Your task to perform on an android device: open app "DoorDash - Food Delivery" (install if not already installed) Image 0: 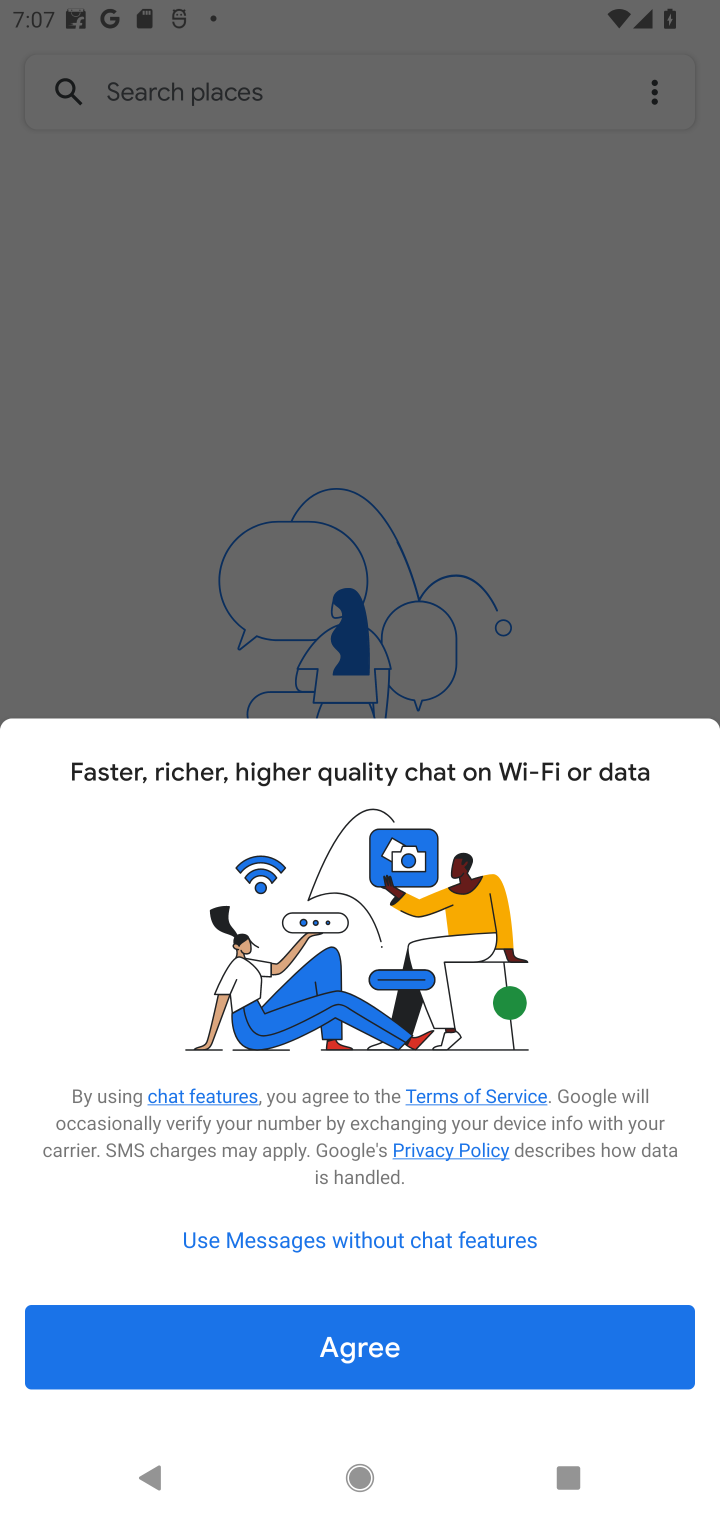
Step 0: press home button
Your task to perform on an android device: open app "DoorDash - Food Delivery" (install if not already installed) Image 1: 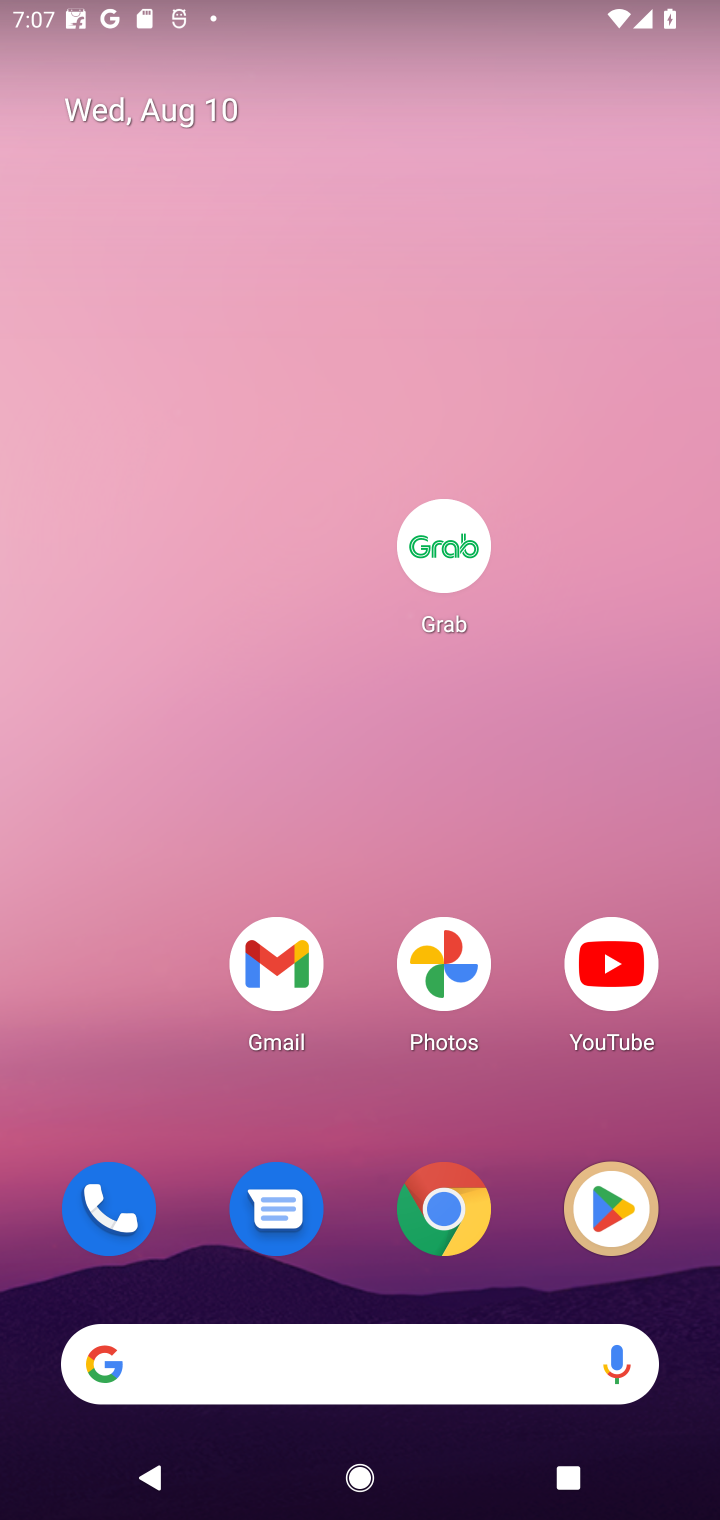
Step 1: drag from (367, 1312) to (331, 191)
Your task to perform on an android device: open app "DoorDash - Food Delivery" (install if not already installed) Image 2: 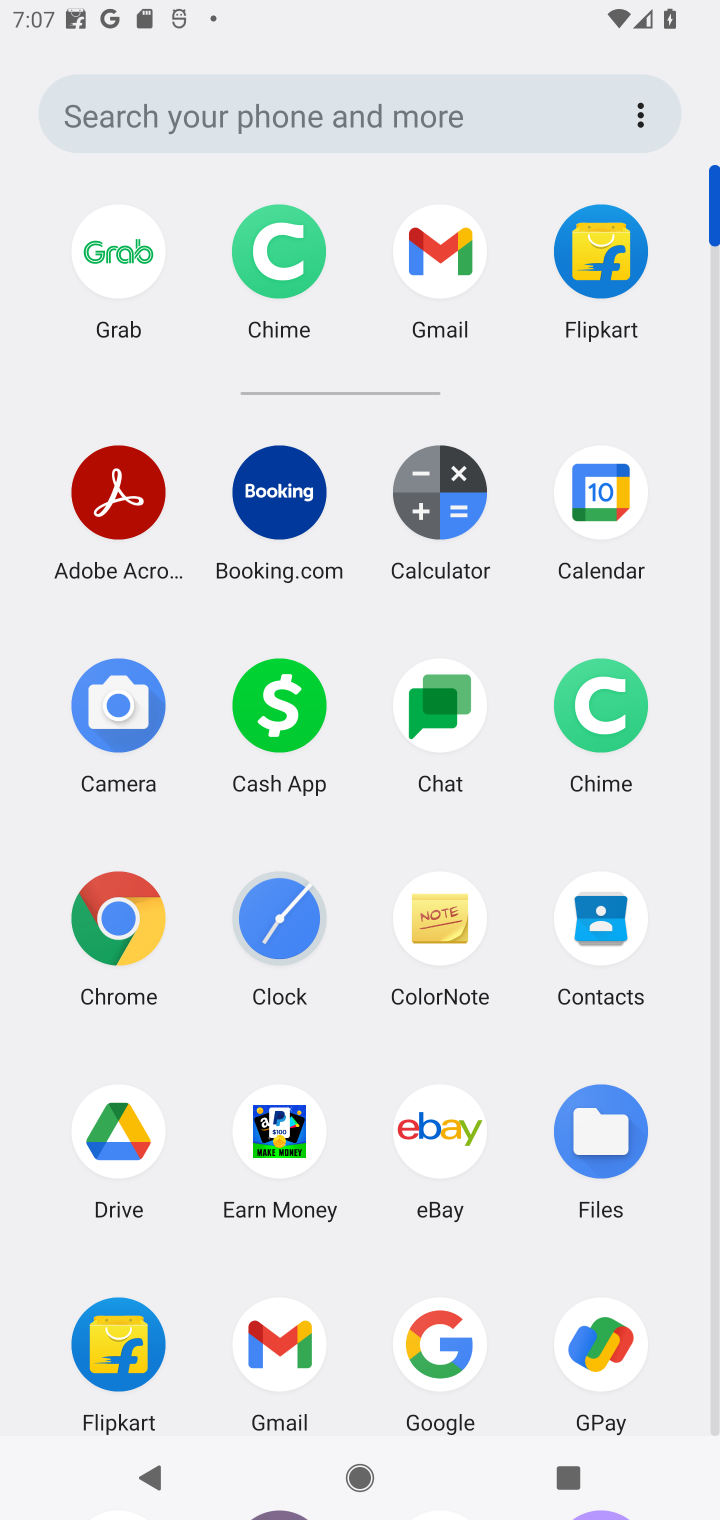
Step 2: click (190, 95)
Your task to perform on an android device: open app "DoorDash - Food Delivery" (install if not already installed) Image 3: 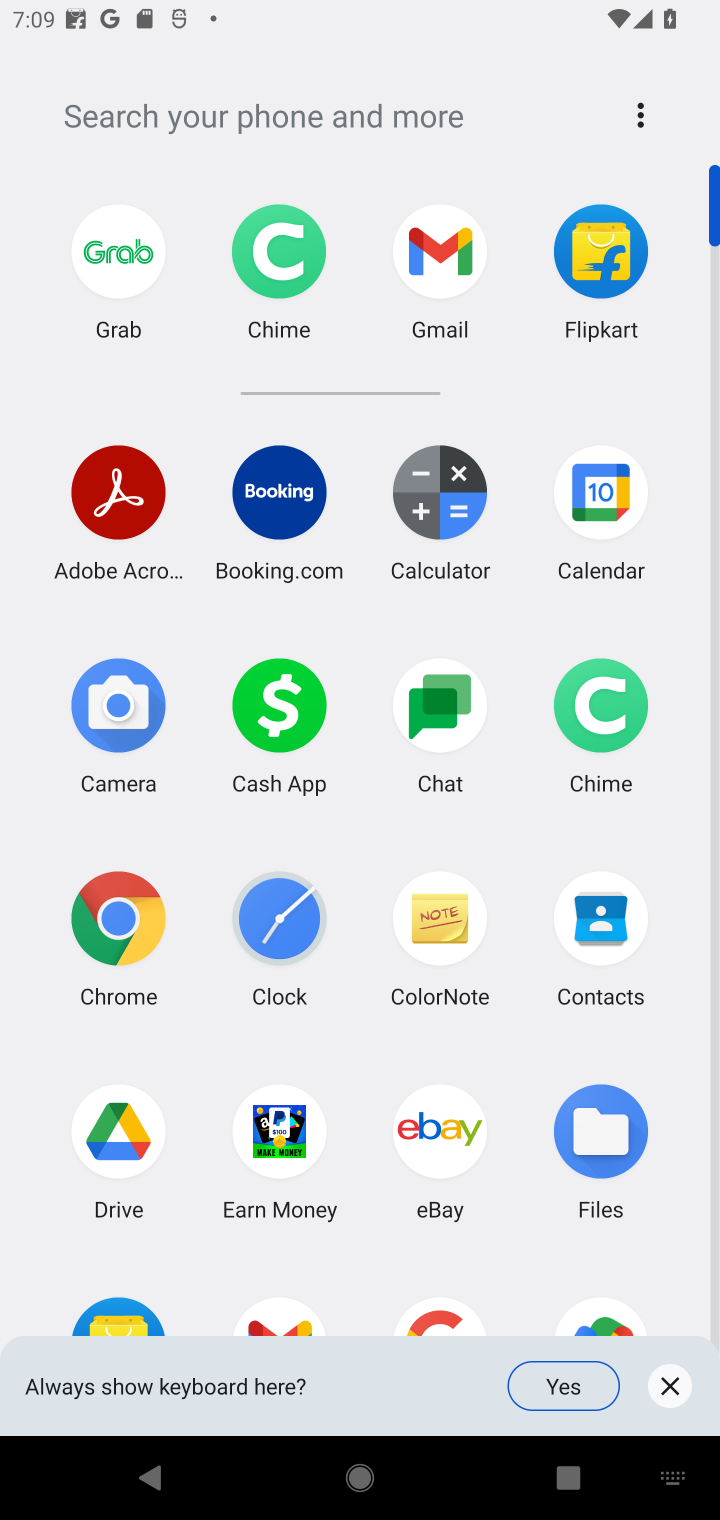
Step 3: click (670, 1388)
Your task to perform on an android device: open app "DoorDash - Food Delivery" (install if not already installed) Image 4: 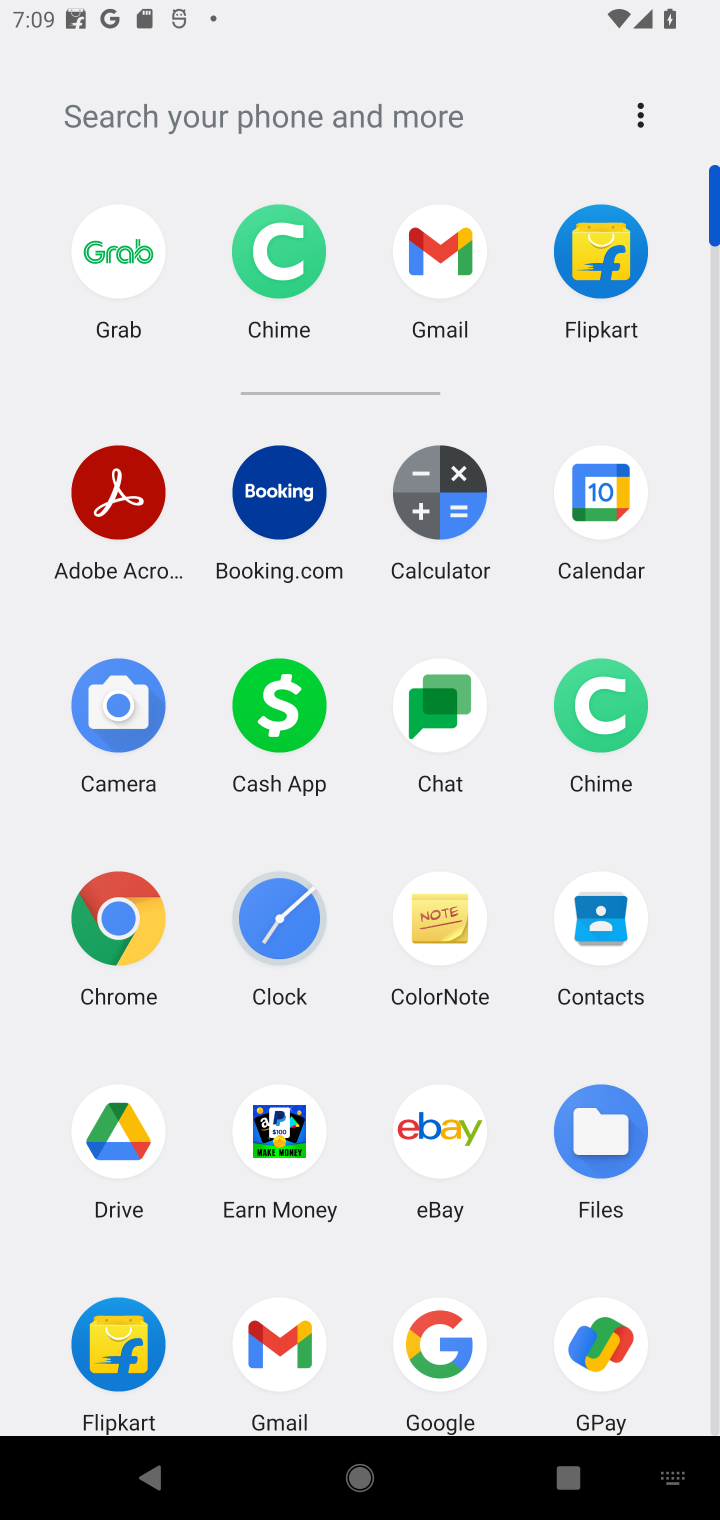
Step 4: click (716, 1401)
Your task to perform on an android device: open app "DoorDash - Food Delivery" (install if not already installed) Image 5: 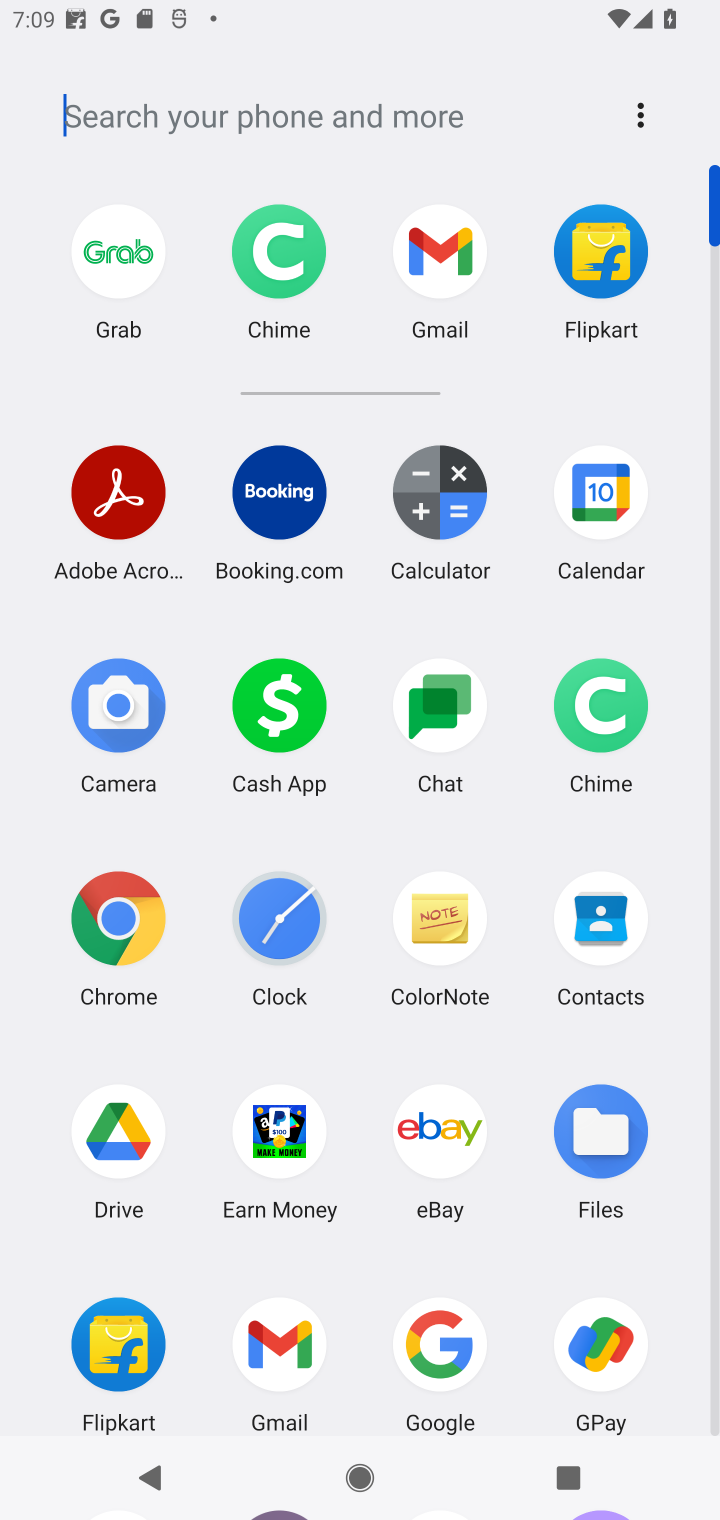
Step 5: click (716, 1401)
Your task to perform on an android device: open app "DoorDash - Food Delivery" (install if not already installed) Image 6: 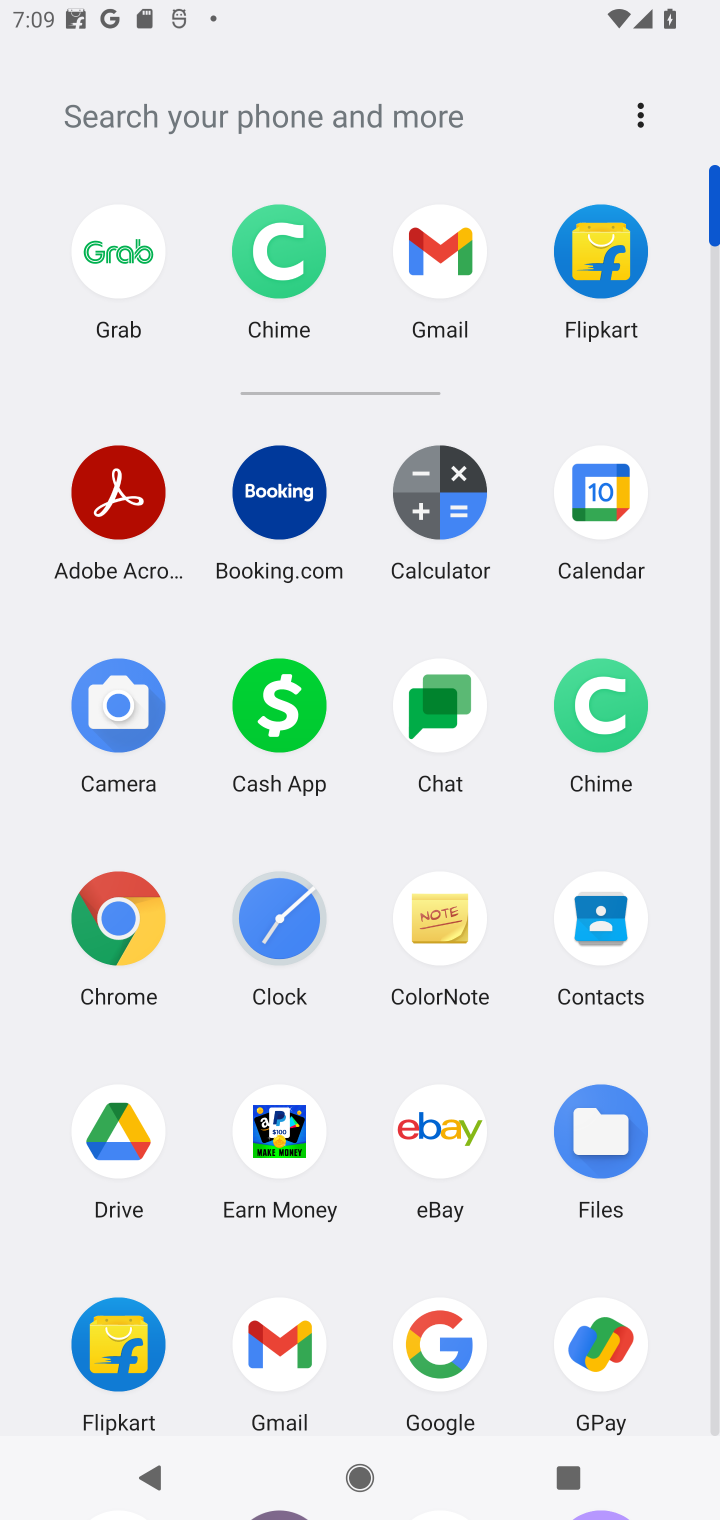
Step 6: click (716, 1401)
Your task to perform on an android device: open app "DoorDash - Food Delivery" (install if not already installed) Image 7: 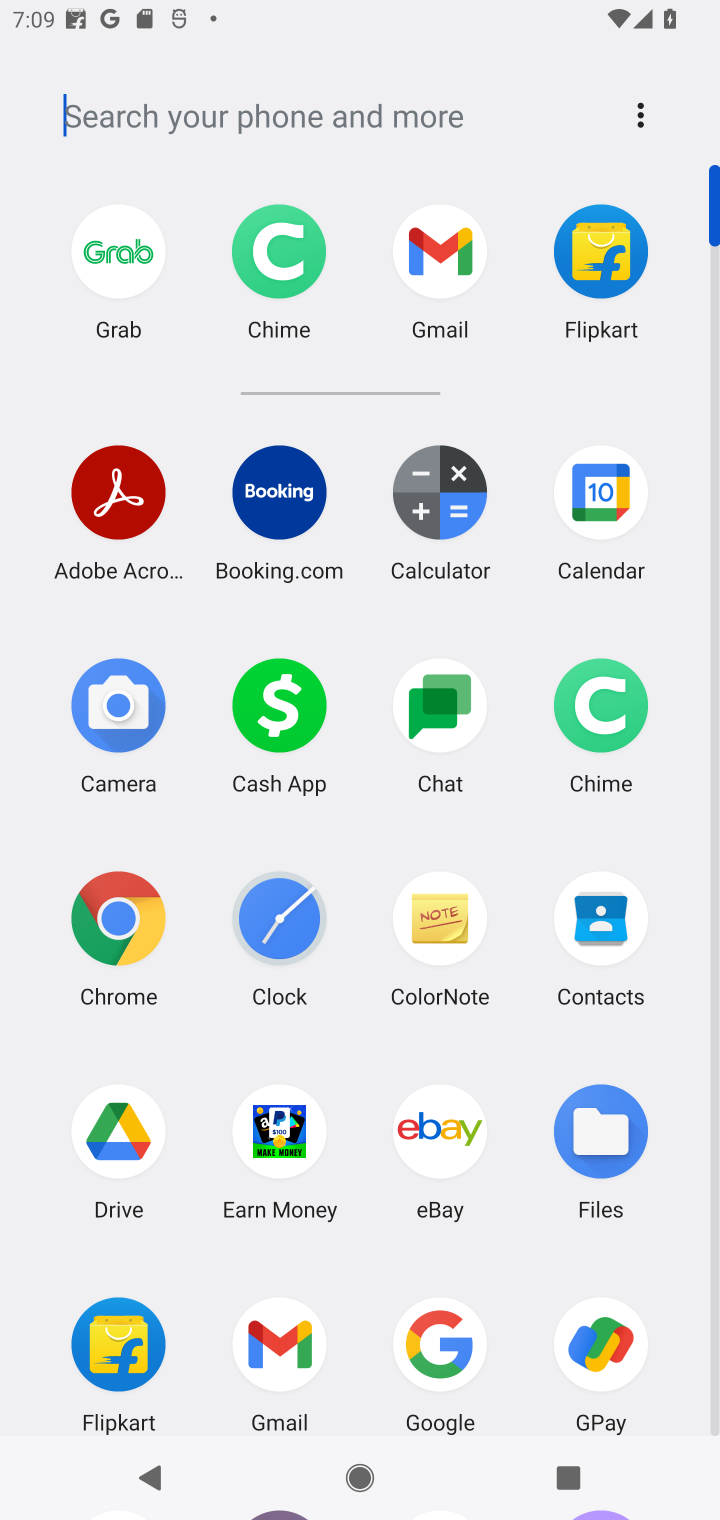
Step 7: press home button
Your task to perform on an android device: open app "DoorDash - Food Delivery" (install if not already installed) Image 8: 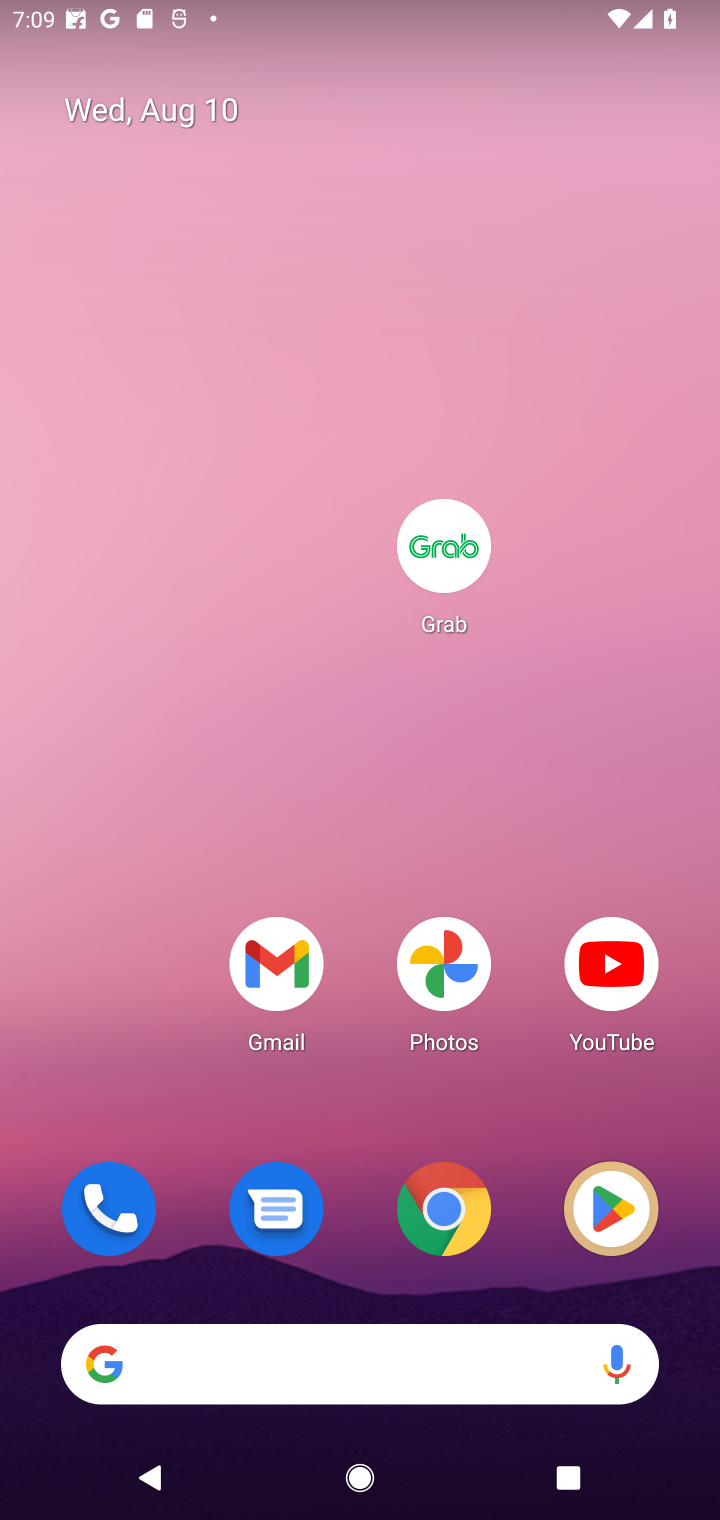
Step 8: click (606, 1208)
Your task to perform on an android device: open app "DoorDash - Food Delivery" (install if not already installed) Image 9: 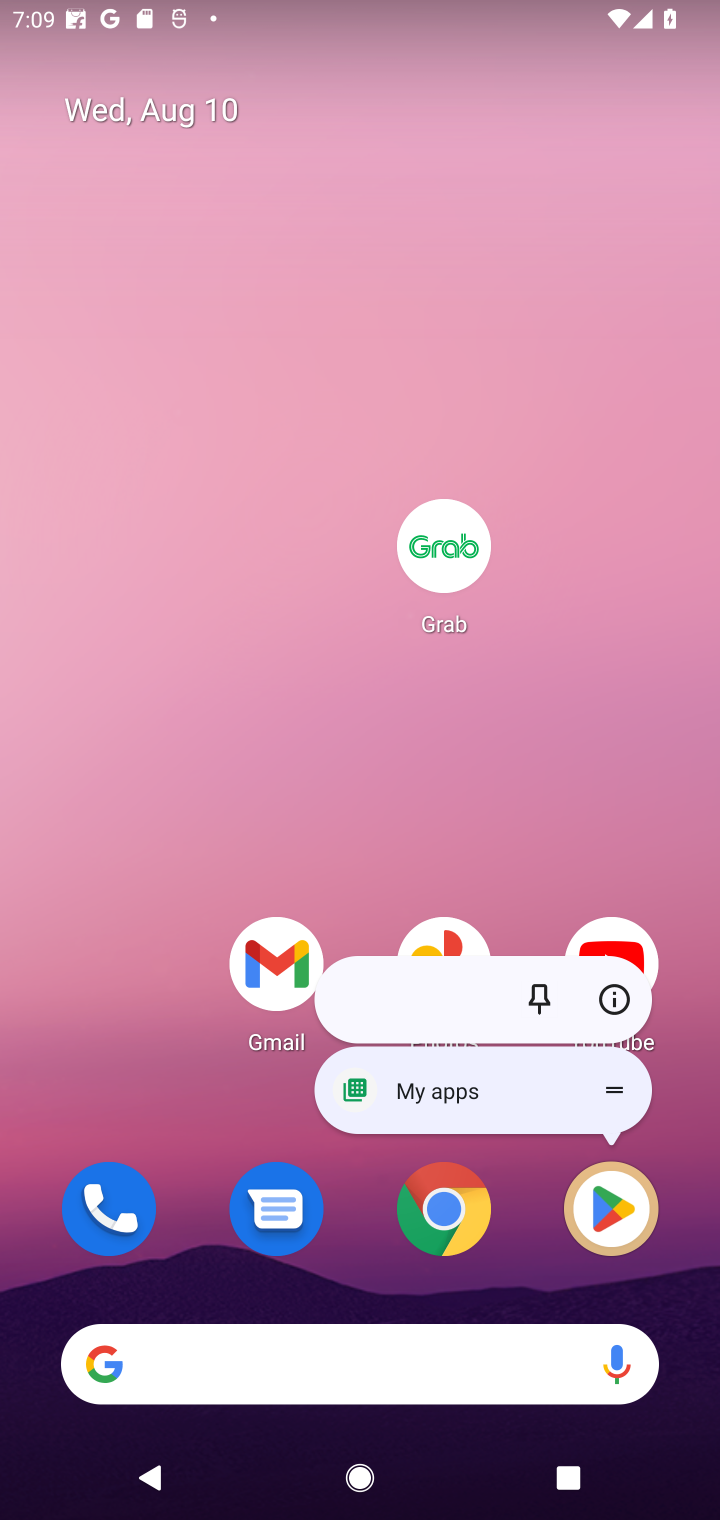
Step 9: click (606, 1208)
Your task to perform on an android device: open app "DoorDash - Food Delivery" (install if not already installed) Image 10: 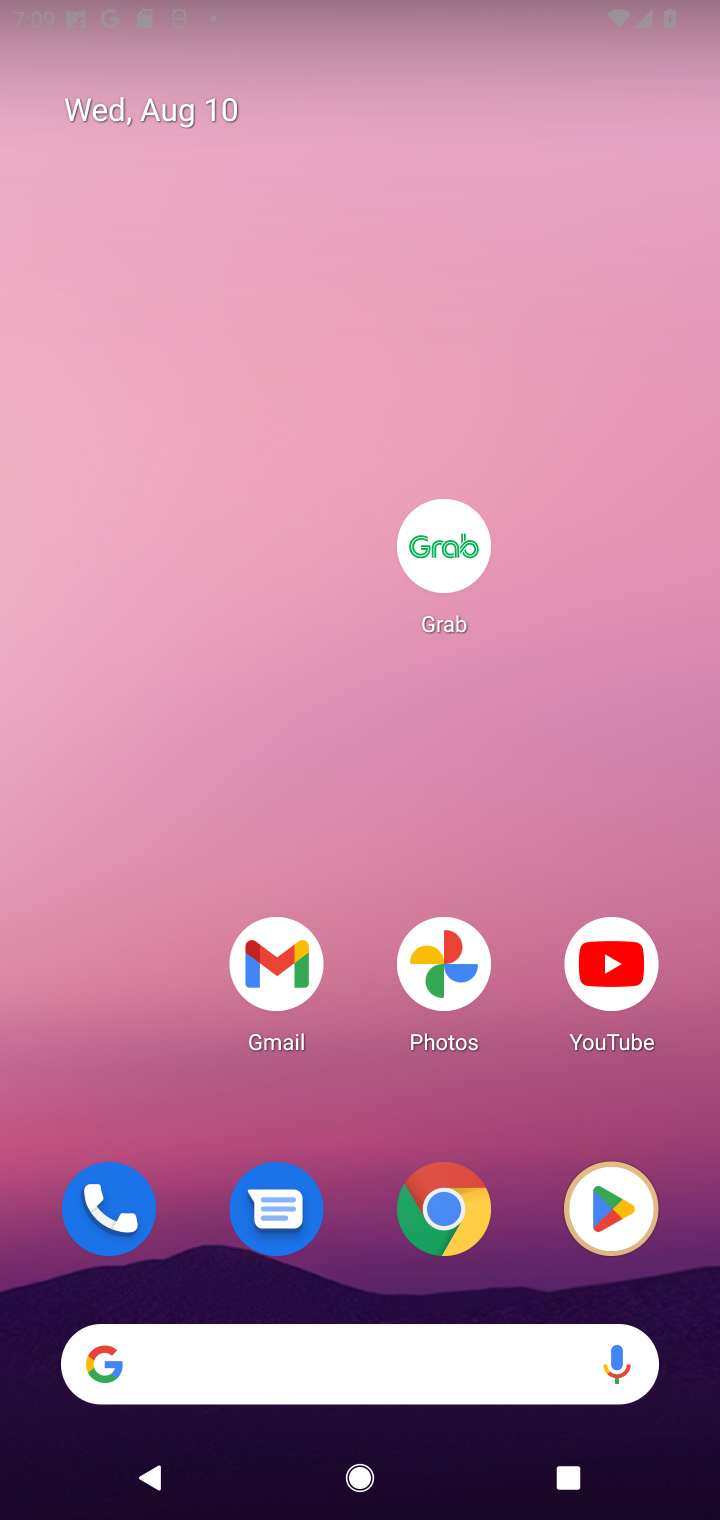
Step 10: click (606, 1208)
Your task to perform on an android device: open app "DoorDash - Food Delivery" (install if not already installed) Image 11: 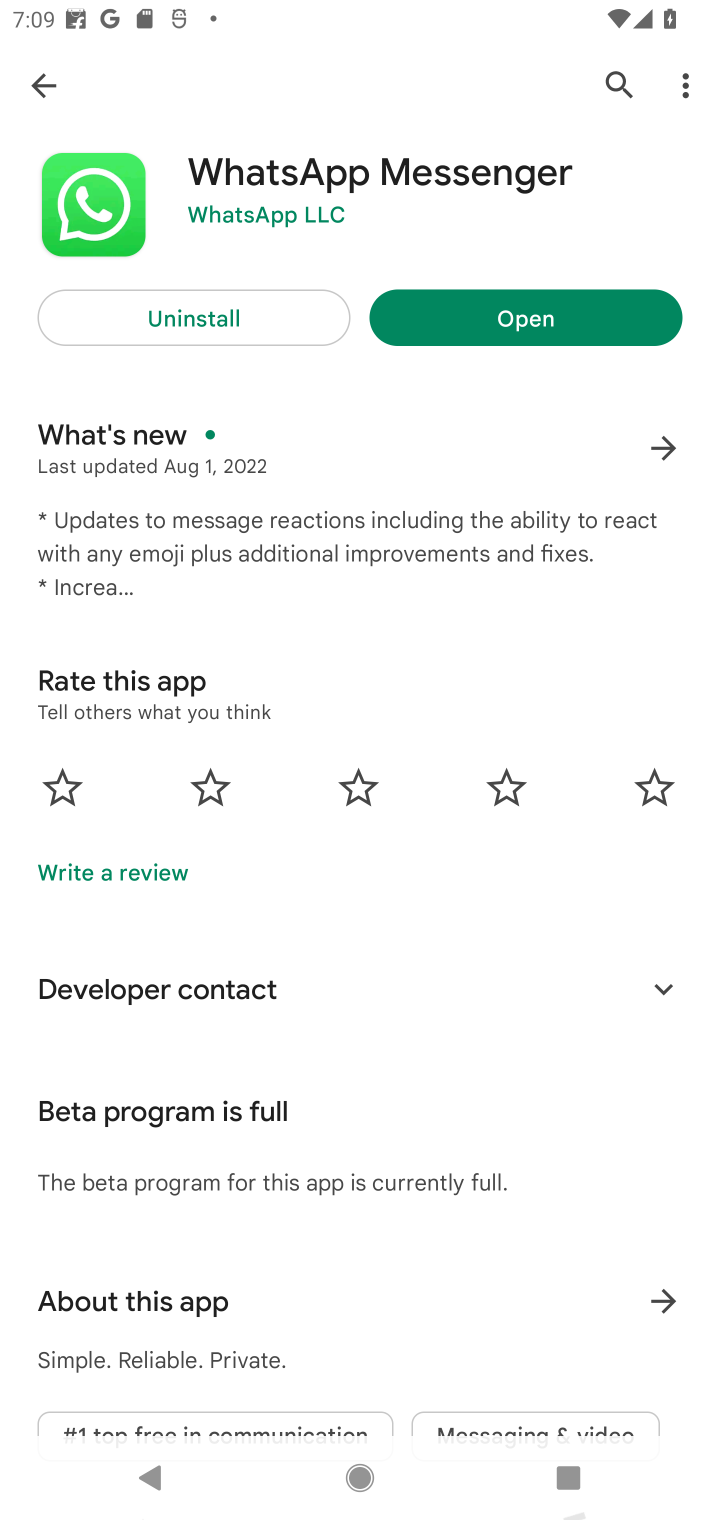
Step 11: click (606, 88)
Your task to perform on an android device: open app "DoorDash - Food Delivery" (install if not already installed) Image 12: 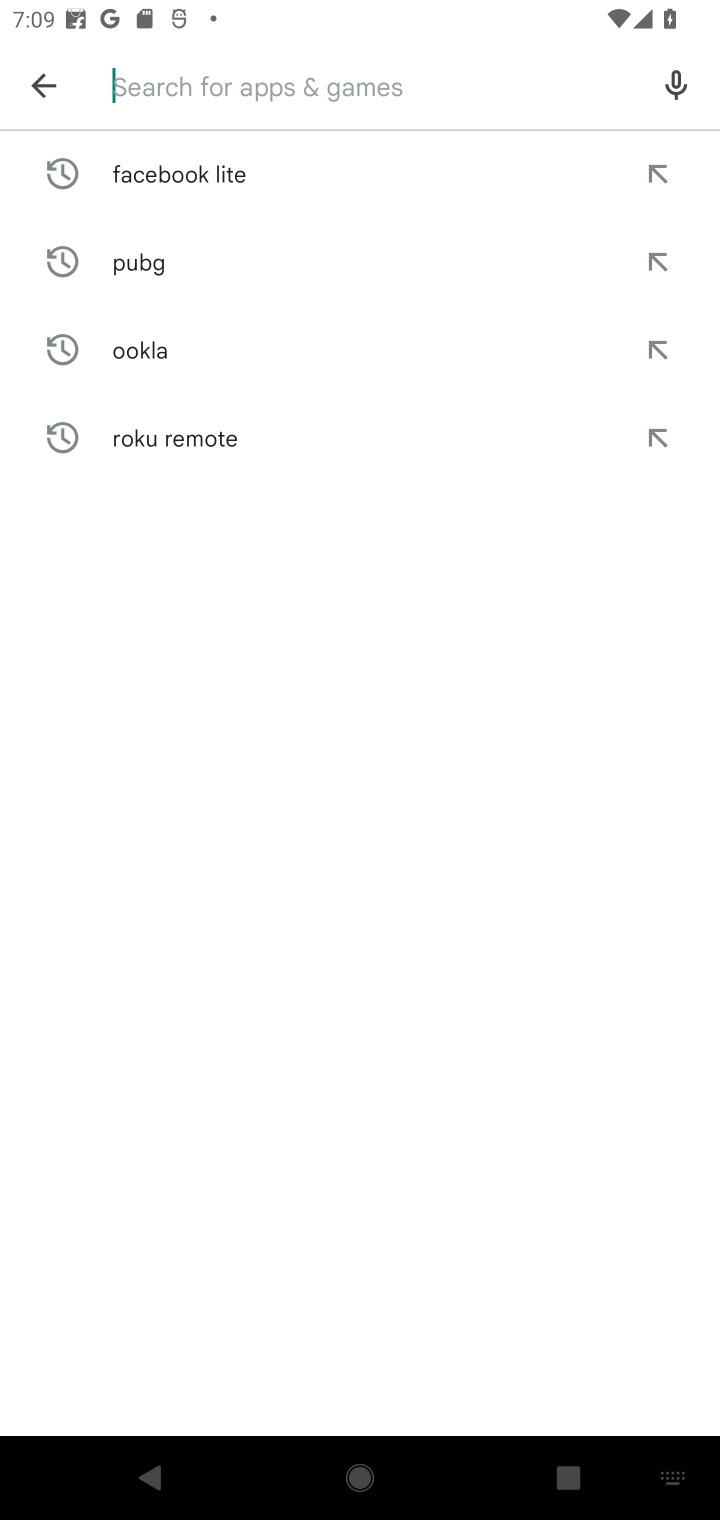
Step 12: type "doordah"
Your task to perform on an android device: open app "DoorDash - Food Delivery" (install if not already installed) Image 13: 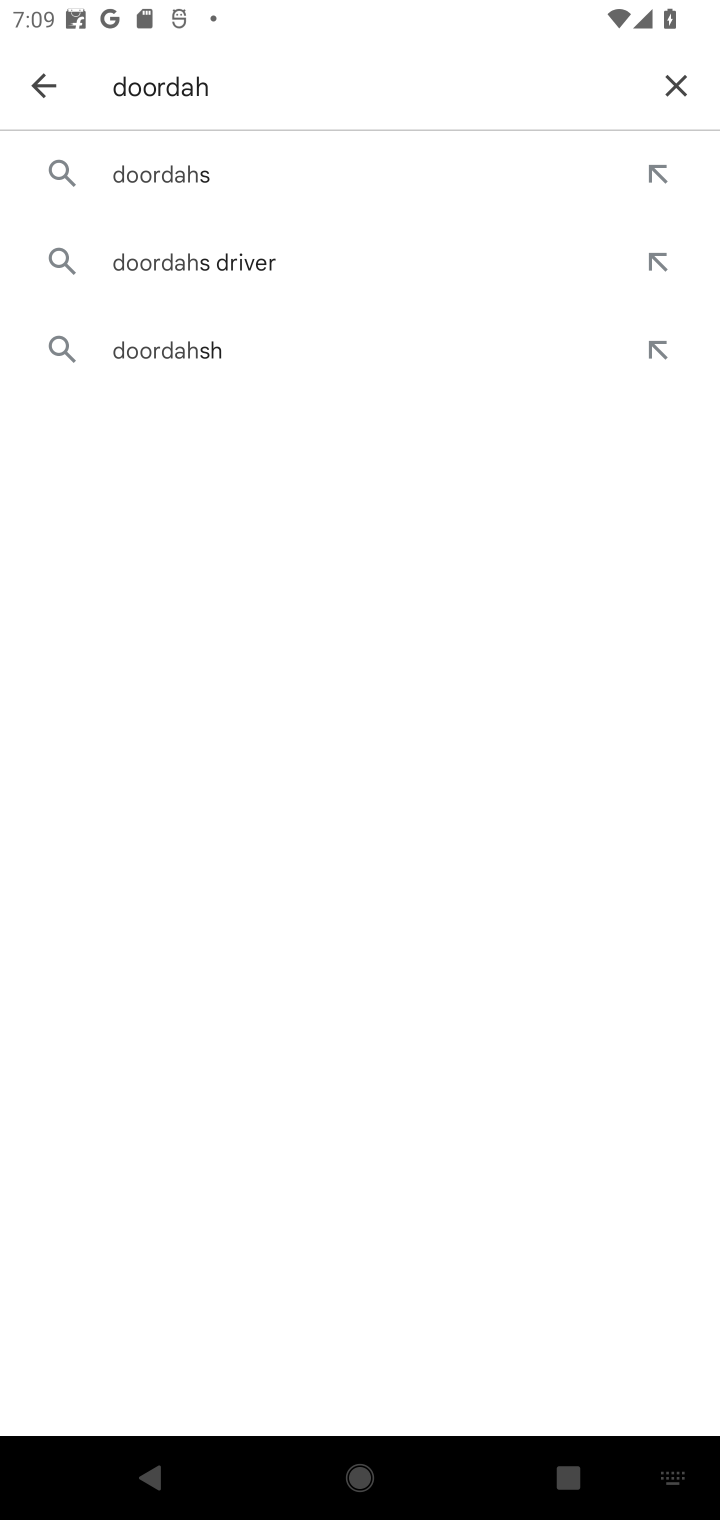
Step 13: click (270, 198)
Your task to perform on an android device: open app "DoorDash - Food Delivery" (install if not already installed) Image 14: 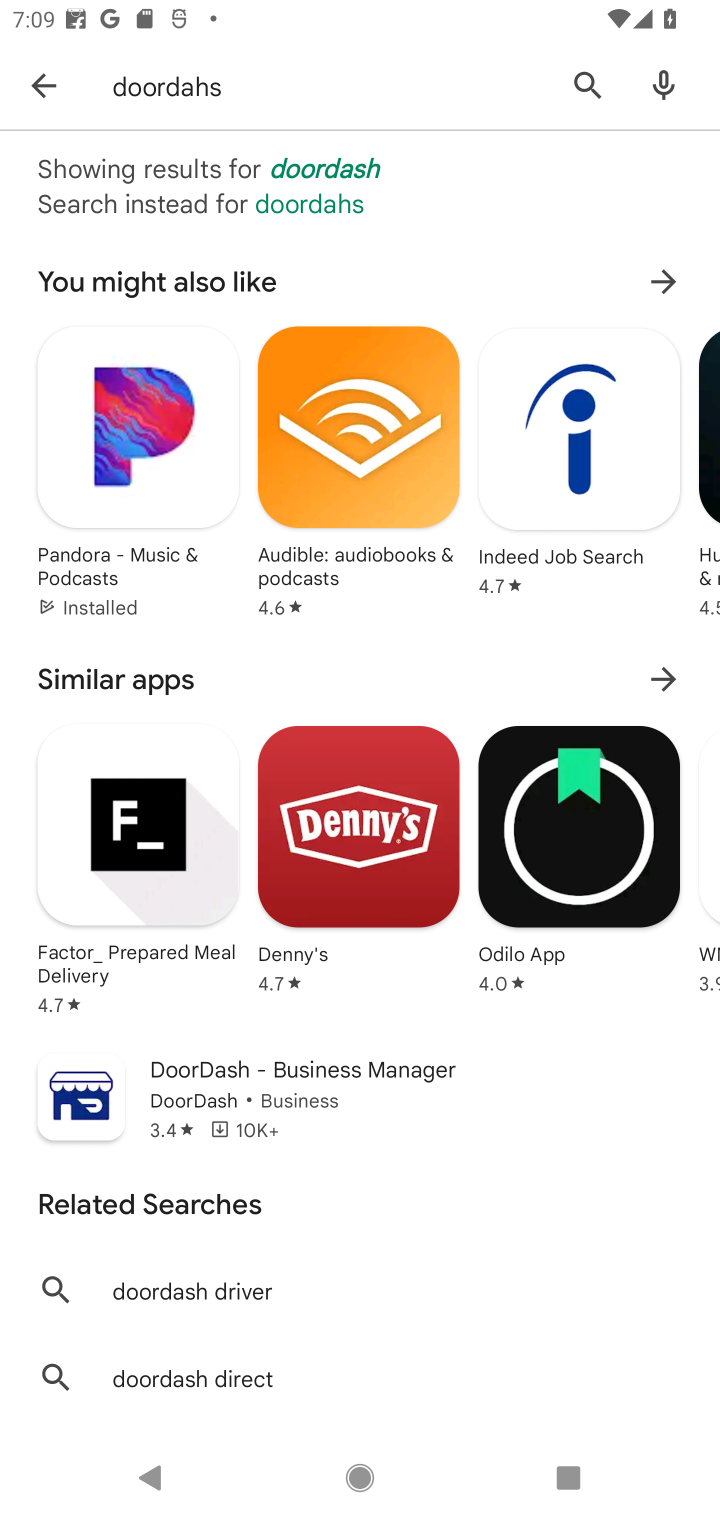
Step 14: click (299, 174)
Your task to perform on an android device: open app "DoorDash - Food Delivery" (install if not already installed) Image 15: 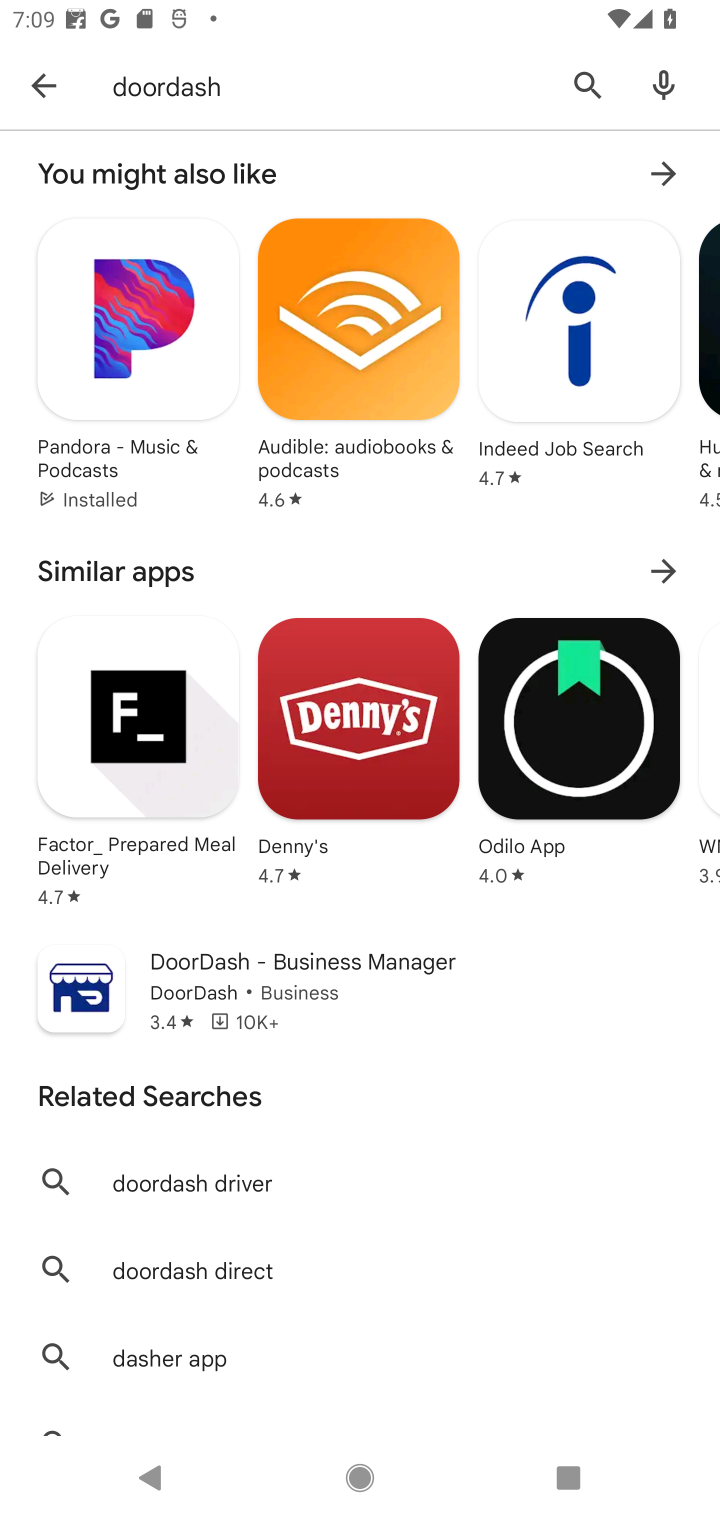
Step 15: click (40, 115)
Your task to perform on an android device: open app "DoorDash - Food Delivery" (install if not already installed) Image 16: 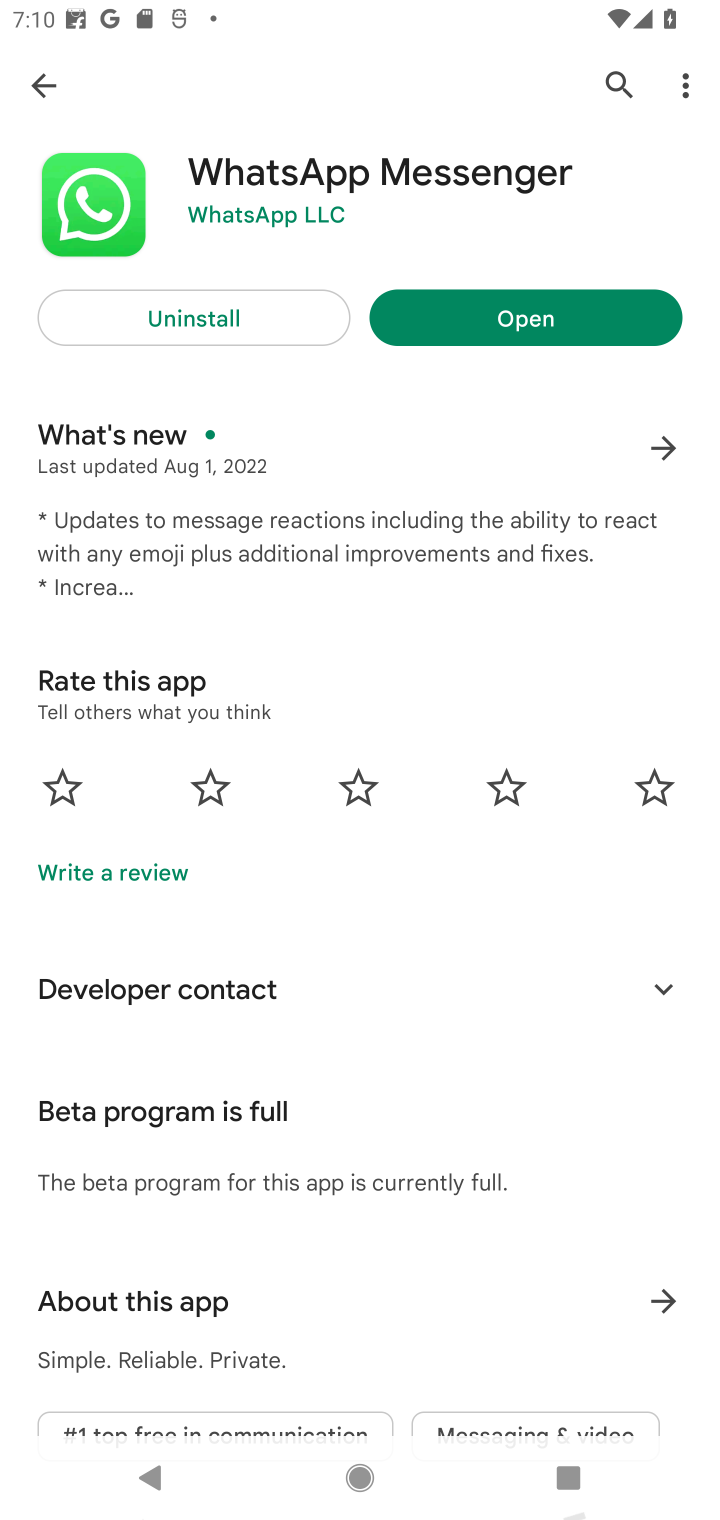
Step 16: click (610, 95)
Your task to perform on an android device: open app "DoorDash - Food Delivery" (install if not already installed) Image 17: 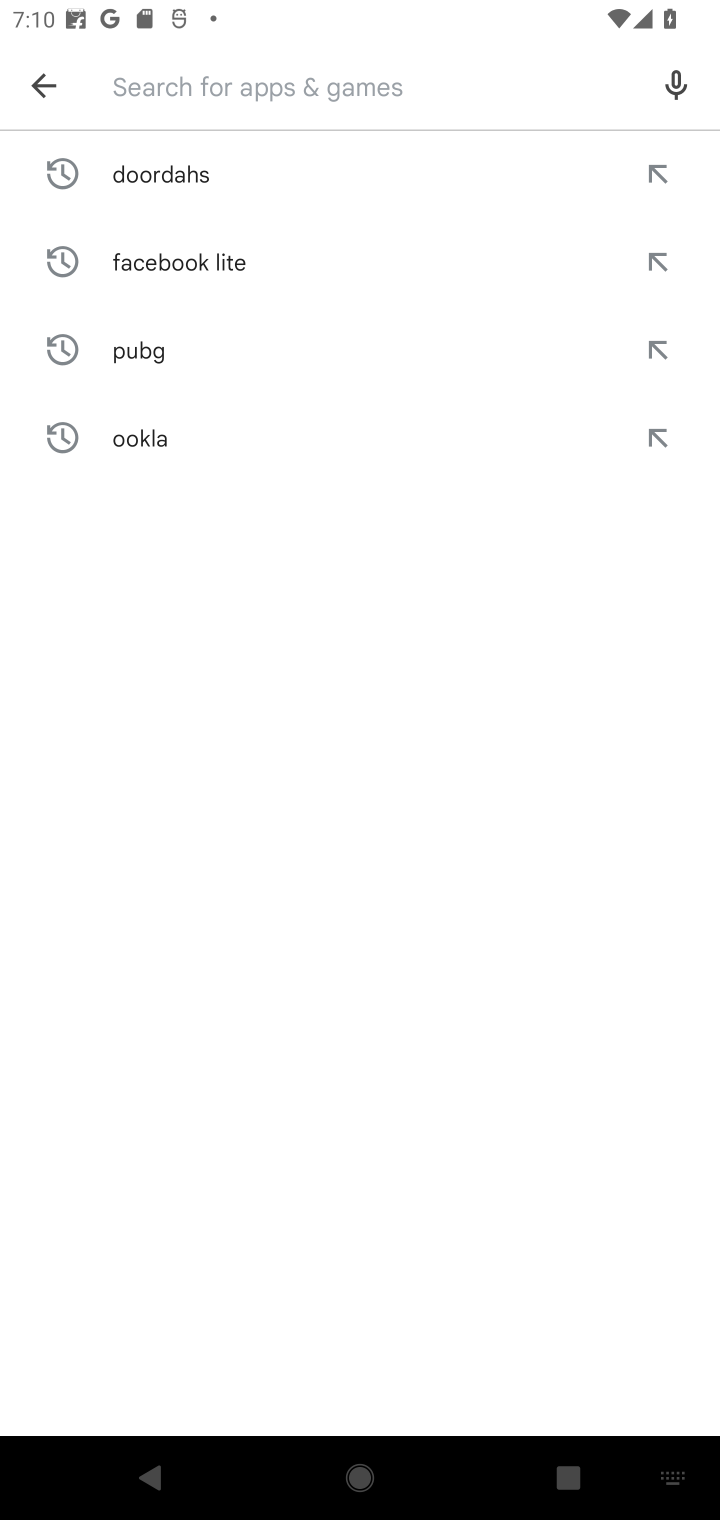
Step 17: type "doordash"
Your task to perform on an android device: open app "DoorDash - Food Delivery" (install if not already installed) Image 18: 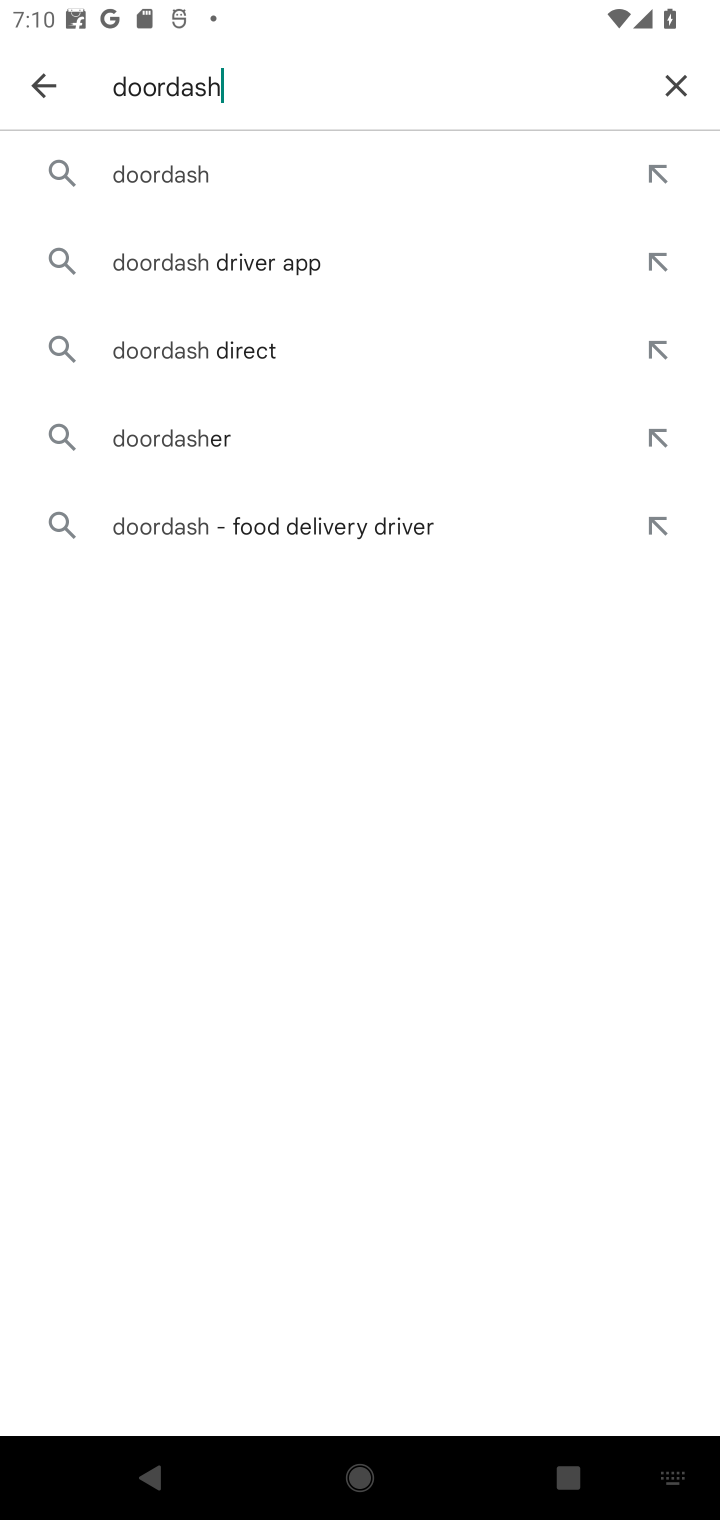
Step 18: click (292, 147)
Your task to perform on an android device: open app "DoorDash - Food Delivery" (install if not already installed) Image 19: 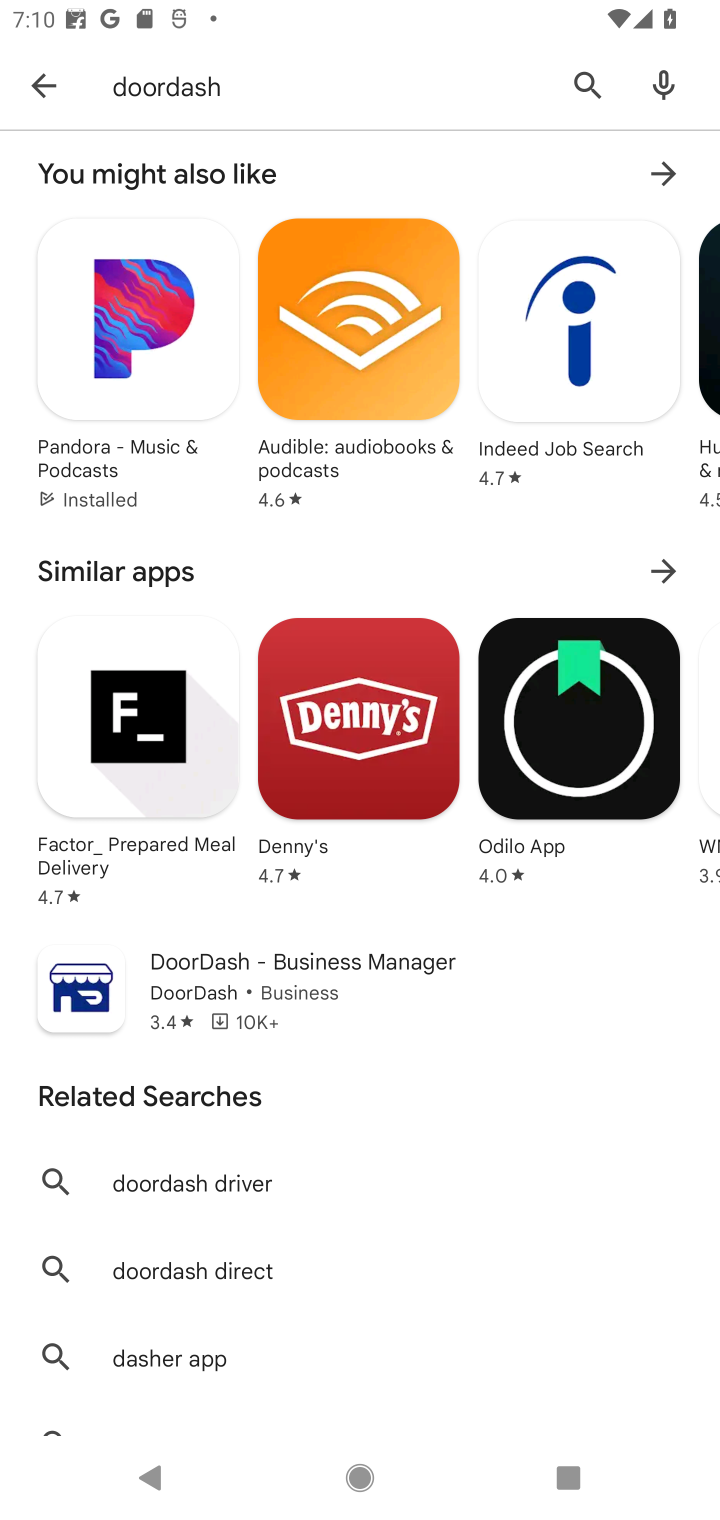
Step 19: task complete